Your task to perform on an android device: open wifi settings Image 0: 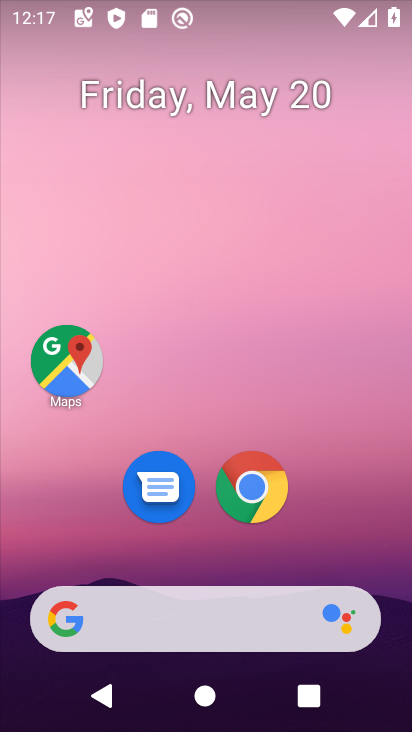
Step 0: drag from (128, 11) to (164, 543)
Your task to perform on an android device: open wifi settings Image 1: 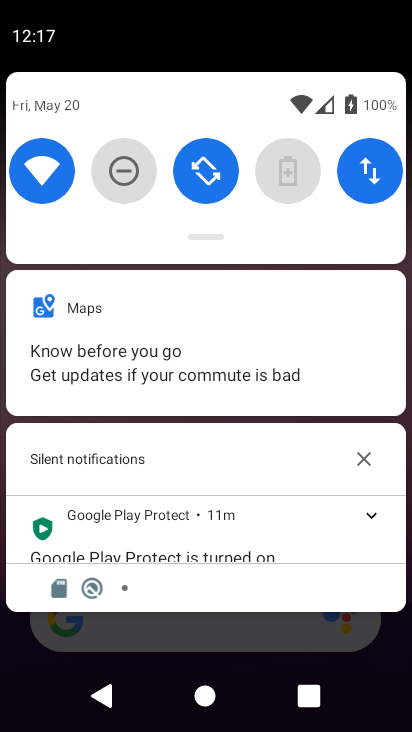
Step 1: click (40, 174)
Your task to perform on an android device: open wifi settings Image 2: 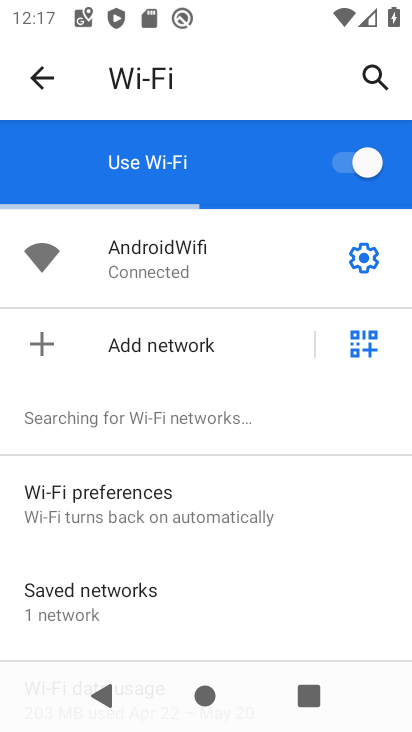
Step 2: task complete